Your task to perform on an android device: turn off notifications in google photos Image 0: 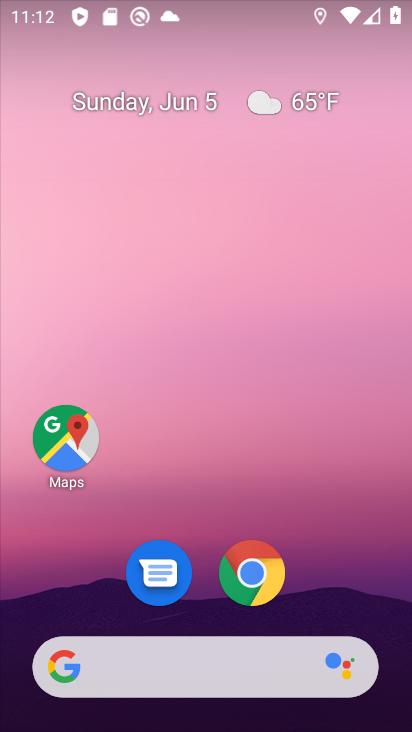
Step 0: drag from (201, 612) to (228, 81)
Your task to perform on an android device: turn off notifications in google photos Image 1: 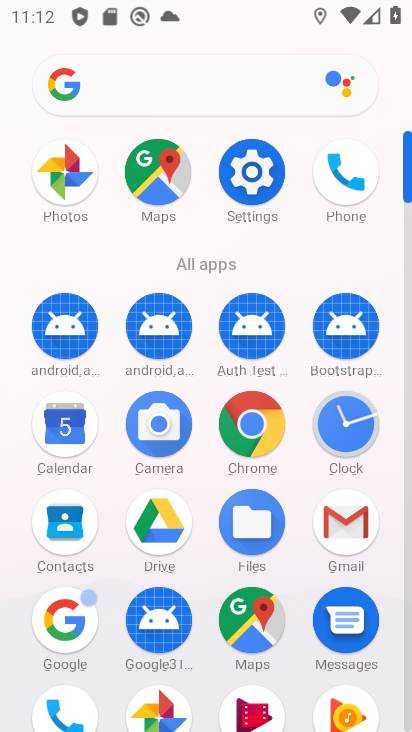
Step 1: click (164, 704)
Your task to perform on an android device: turn off notifications in google photos Image 2: 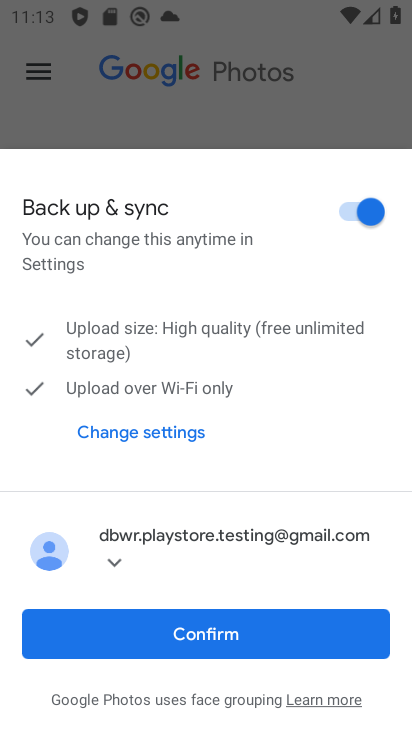
Step 2: click (217, 637)
Your task to perform on an android device: turn off notifications in google photos Image 3: 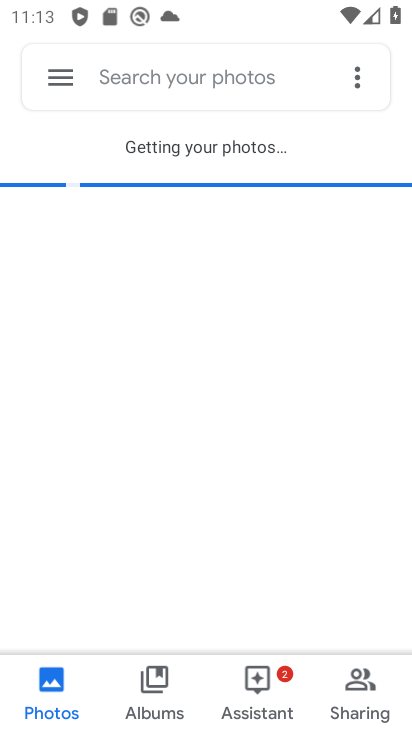
Step 3: click (53, 75)
Your task to perform on an android device: turn off notifications in google photos Image 4: 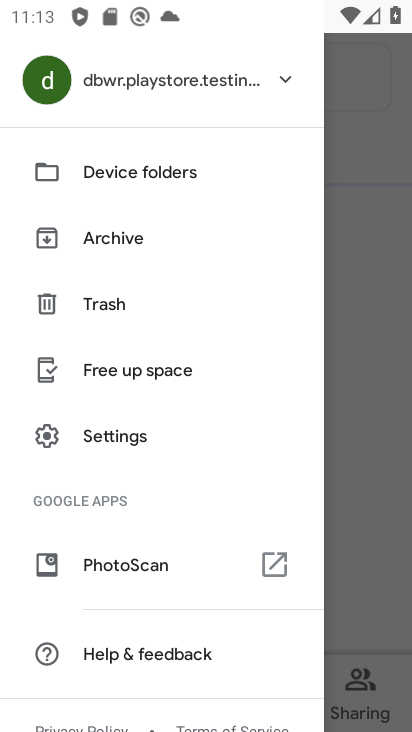
Step 4: click (154, 437)
Your task to perform on an android device: turn off notifications in google photos Image 5: 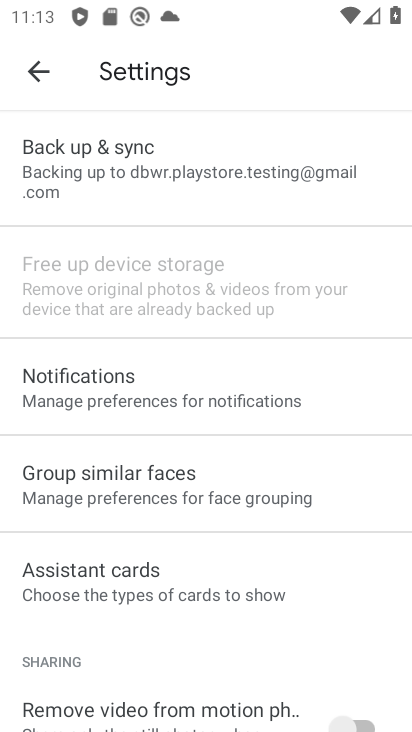
Step 5: click (153, 379)
Your task to perform on an android device: turn off notifications in google photos Image 6: 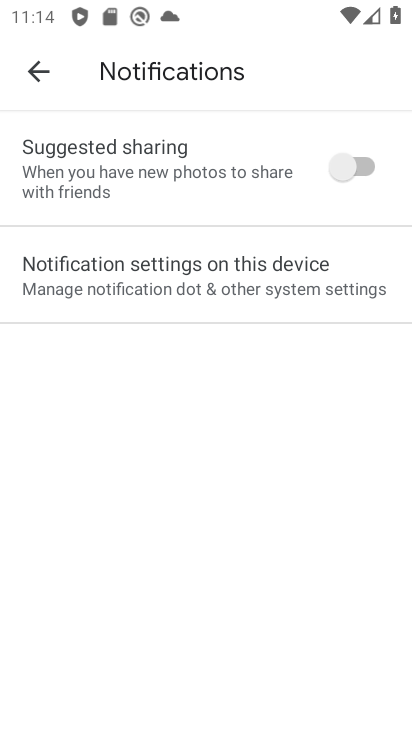
Step 6: click (241, 283)
Your task to perform on an android device: turn off notifications in google photos Image 7: 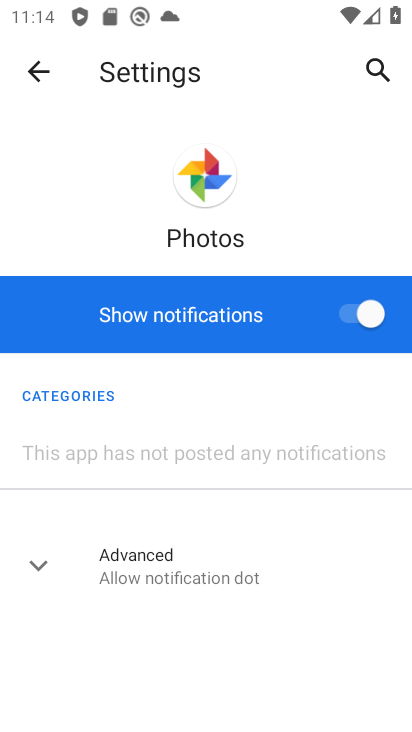
Step 7: click (348, 307)
Your task to perform on an android device: turn off notifications in google photos Image 8: 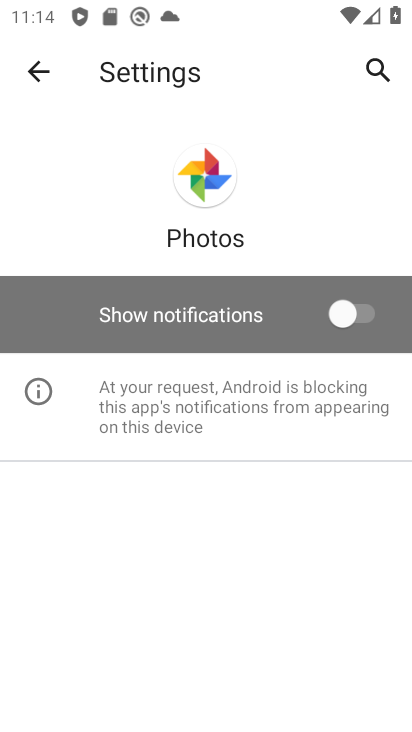
Step 8: task complete